Your task to perform on an android device: turn off notifications settings in the gmail app Image 0: 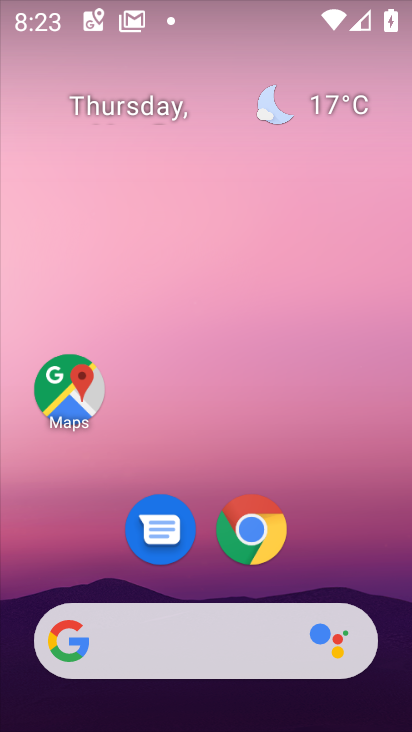
Step 0: drag from (316, 489) to (250, 56)
Your task to perform on an android device: turn off notifications settings in the gmail app Image 1: 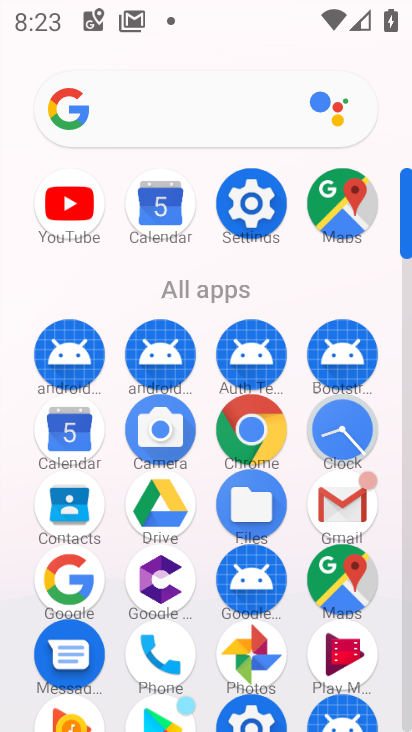
Step 1: click (336, 509)
Your task to perform on an android device: turn off notifications settings in the gmail app Image 2: 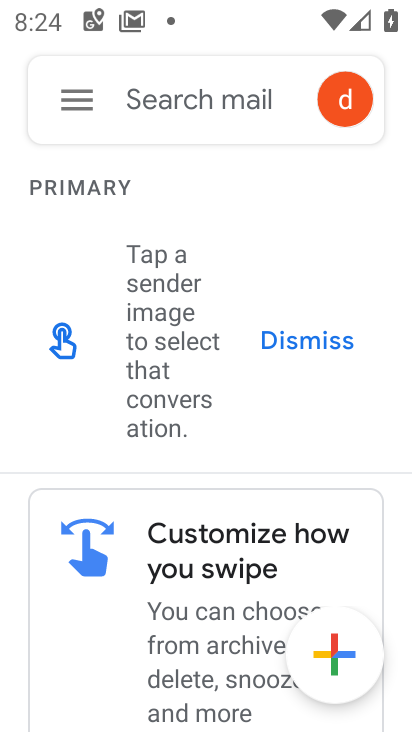
Step 2: click (62, 105)
Your task to perform on an android device: turn off notifications settings in the gmail app Image 3: 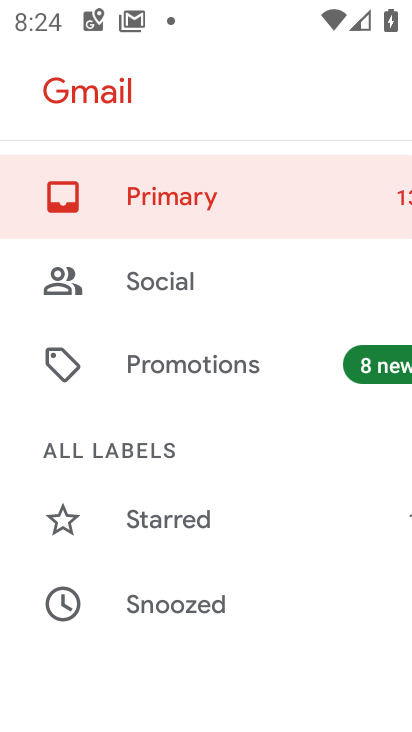
Step 3: drag from (201, 554) to (171, 117)
Your task to perform on an android device: turn off notifications settings in the gmail app Image 4: 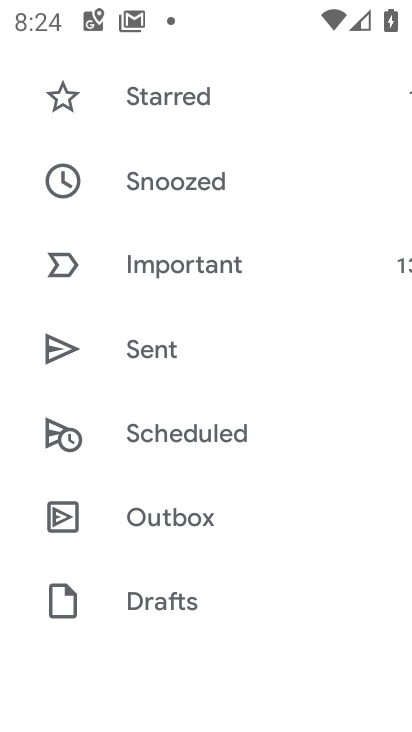
Step 4: drag from (269, 572) to (238, 99)
Your task to perform on an android device: turn off notifications settings in the gmail app Image 5: 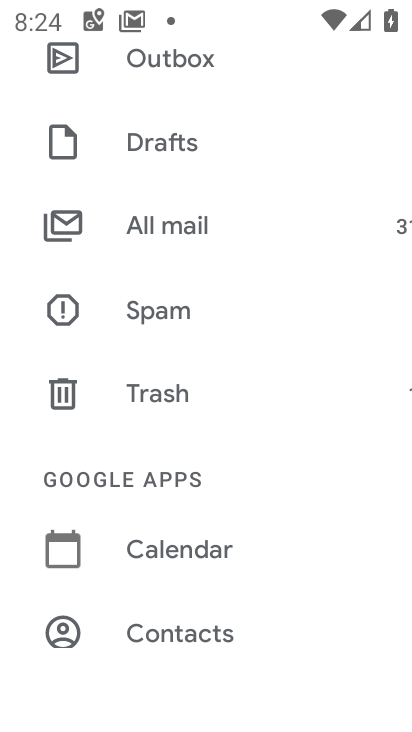
Step 5: drag from (228, 418) to (199, 44)
Your task to perform on an android device: turn off notifications settings in the gmail app Image 6: 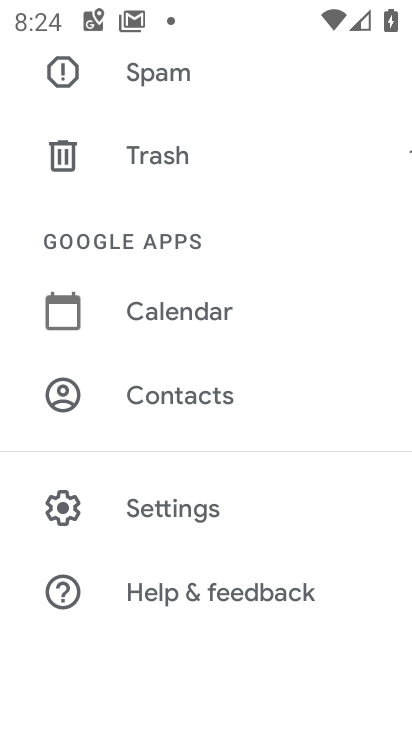
Step 6: click (179, 510)
Your task to perform on an android device: turn off notifications settings in the gmail app Image 7: 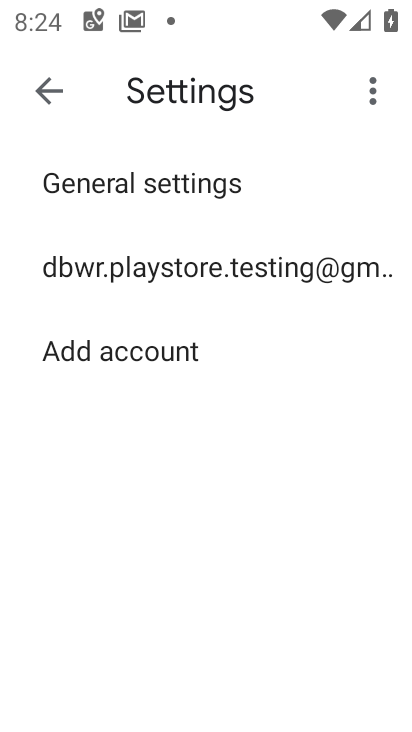
Step 7: click (178, 183)
Your task to perform on an android device: turn off notifications settings in the gmail app Image 8: 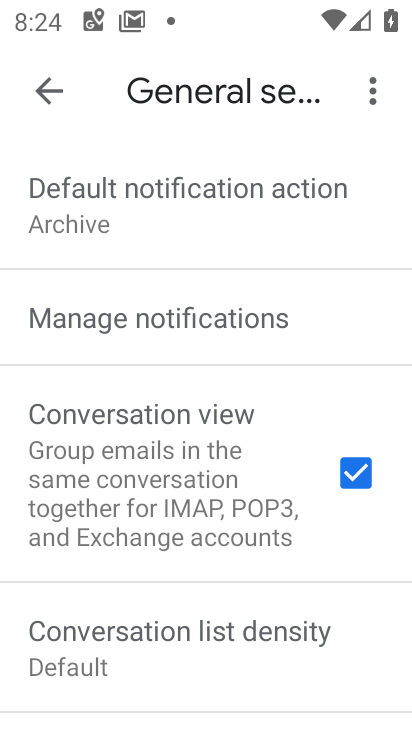
Step 8: click (172, 310)
Your task to perform on an android device: turn off notifications settings in the gmail app Image 9: 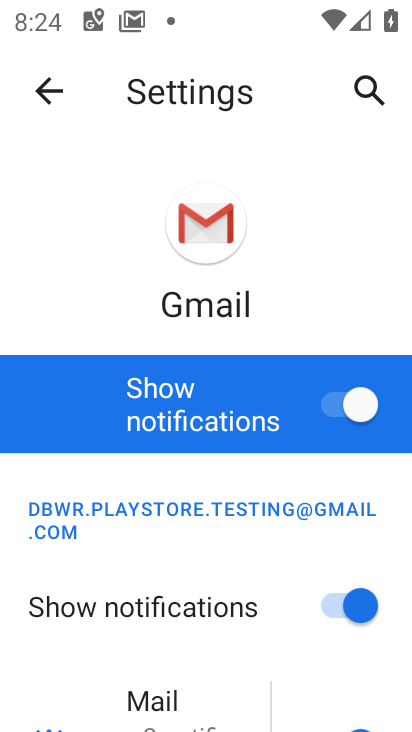
Step 9: click (349, 403)
Your task to perform on an android device: turn off notifications settings in the gmail app Image 10: 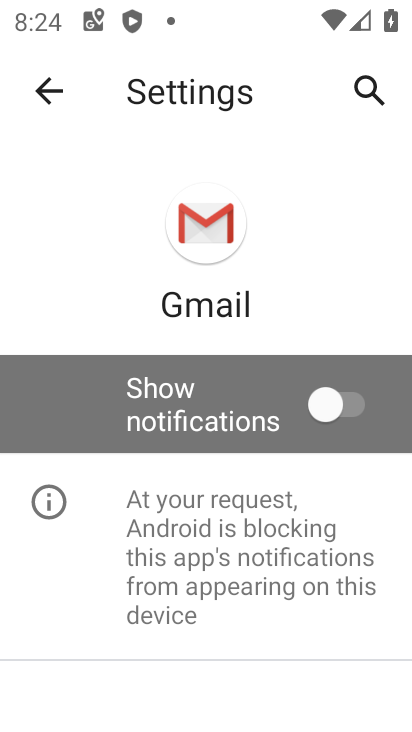
Step 10: task complete